Your task to perform on an android device: change notification settings in the gmail app Image 0: 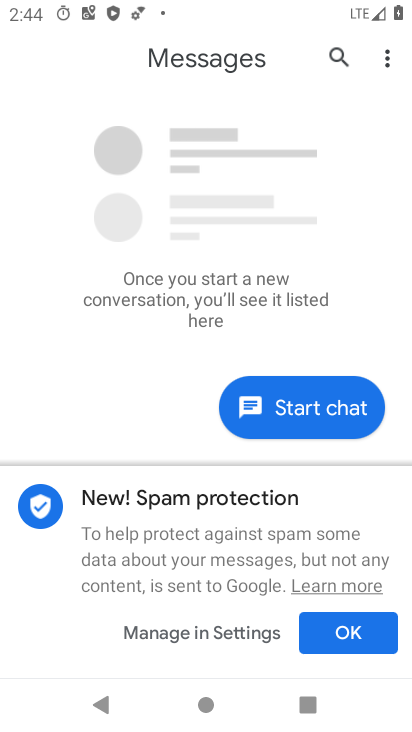
Step 0: drag from (232, 652) to (247, 359)
Your task to perform on an android device: change notification settings in the gmail app Image 1: 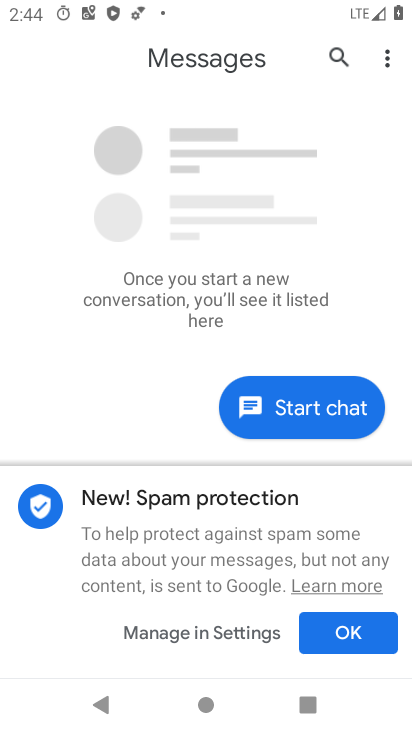
Step 1: press home button
Your task to perform on an android device: change notification settings in the gmail app Image 2: 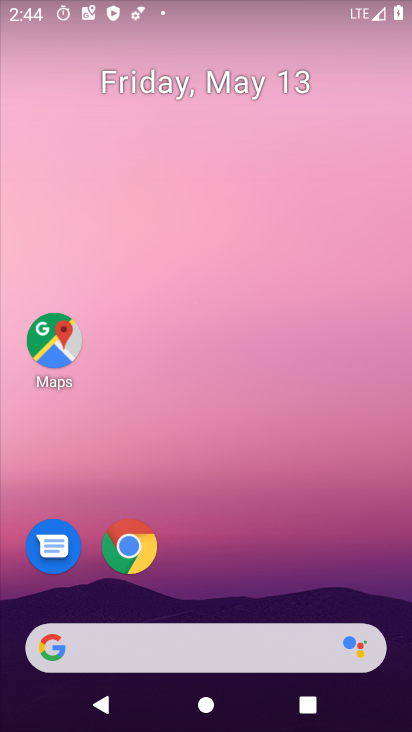
Step 2: drag from (212, 625) to (300, 0)
Your task to perform on an android device: change notification settings in the gmail app Image 3: 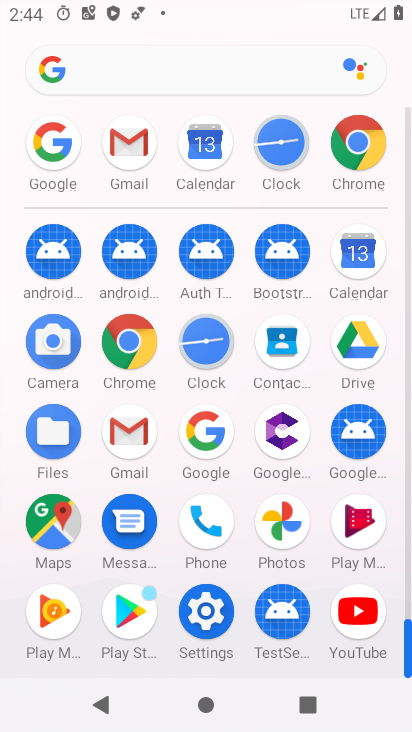
Step 3: click (132, 451)
Your task to perform on an android device: change notification settings in the gmail app Image 4: 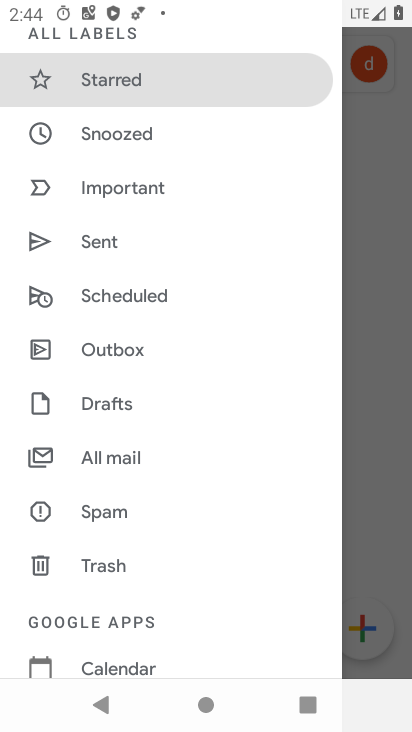
Step 4: drag from (114, 615) to (198, 211)
Your task to perform on an android device: change notification settings in the gmail app Image 5: 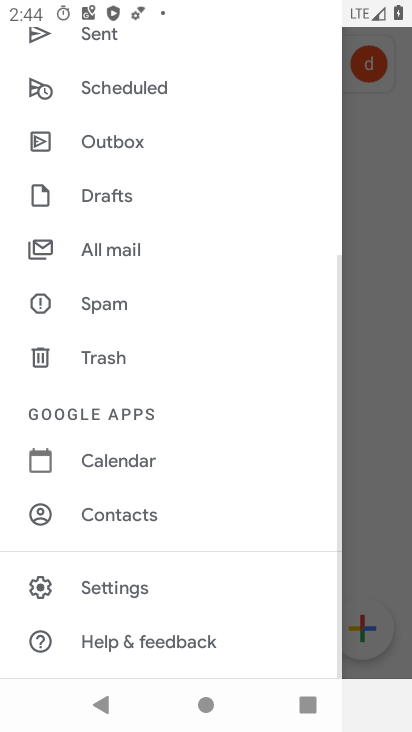
Step 5: click (141, 595)
Your task to perform on an android device: change notification settings in the gmail app Image 6: 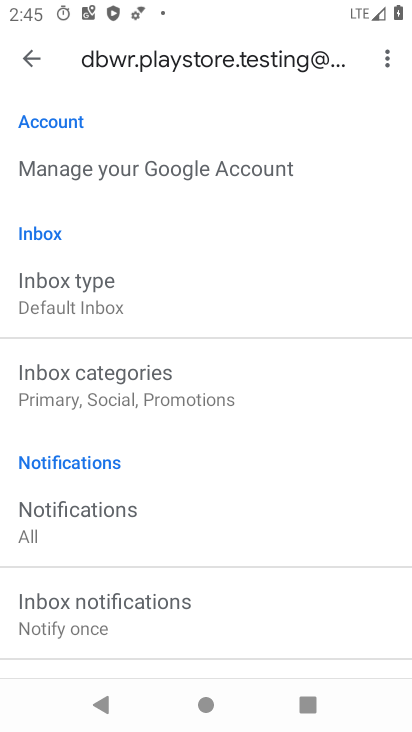
Step 6: drag from (139, 534) to (151, 451)
Your task to perform on an android device: change notification settings in the gmail app Image 7: 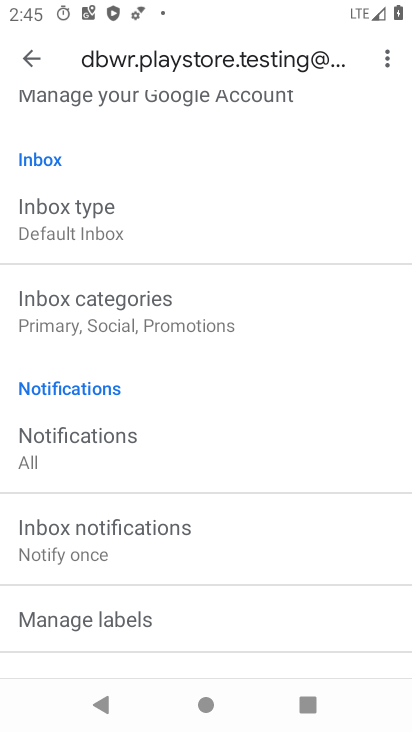
Step 7: click (32, 74)
Your task to perform on an android device: change notification settings in the gmail app Image 8: 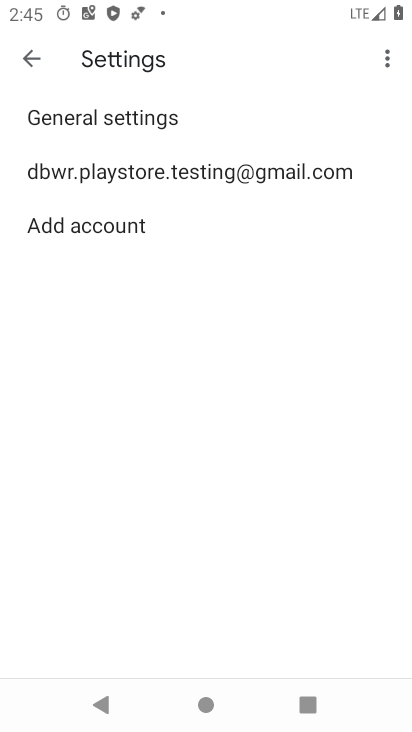
Step 8: click (124, 119)
Your task to perform on an android device: change notification settings in the gmail app Image 9: 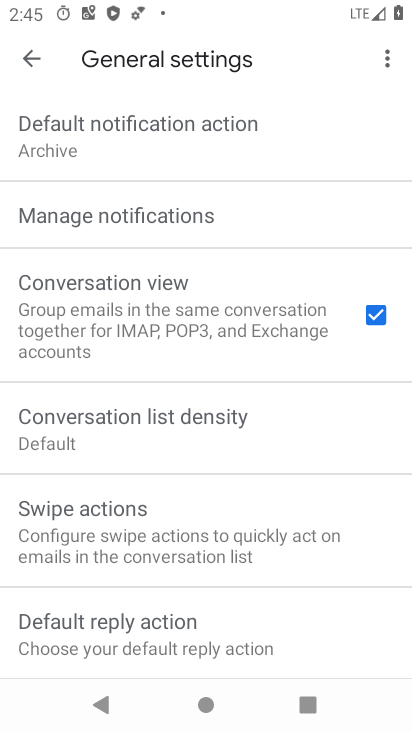
Step 9: click (262, 203)
Your task to perform on an android device: change notification settings in the gmail app Image 10: 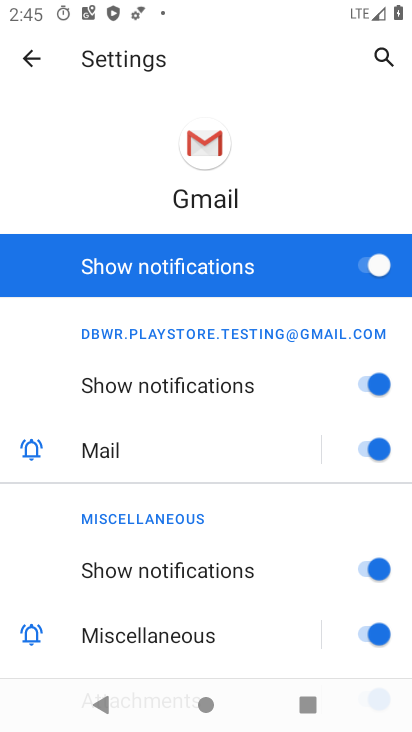
Step 10: click (351, 270)
Your task to perform on an android device: change notification settings in the gmail app Image 11: 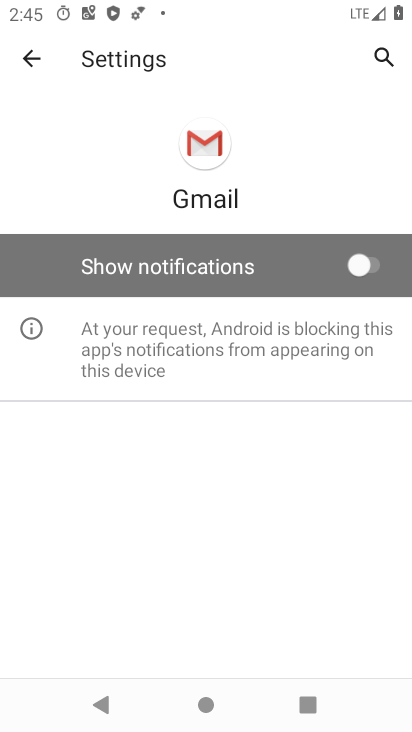
Step 11: task complete